Your task to perform on an android device: Open the calendar app, open the side menu, and click the "Day" option Image 0: 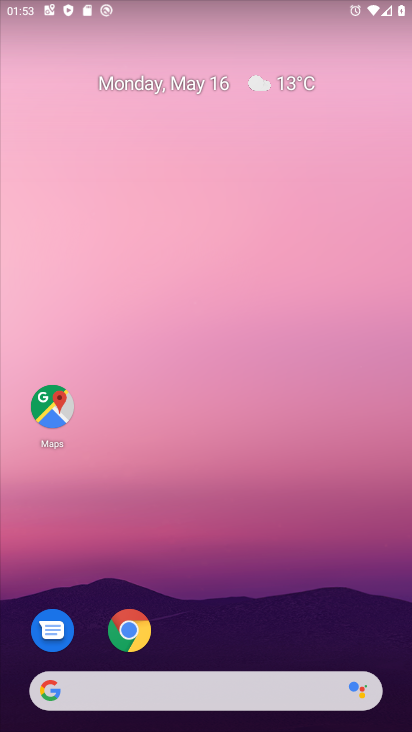
Step 0: drag from (286, 411) to (355, 3)
Your task to perform on an android device: Open the calendar app, open the side menu, and click the "Day" option Image 1: 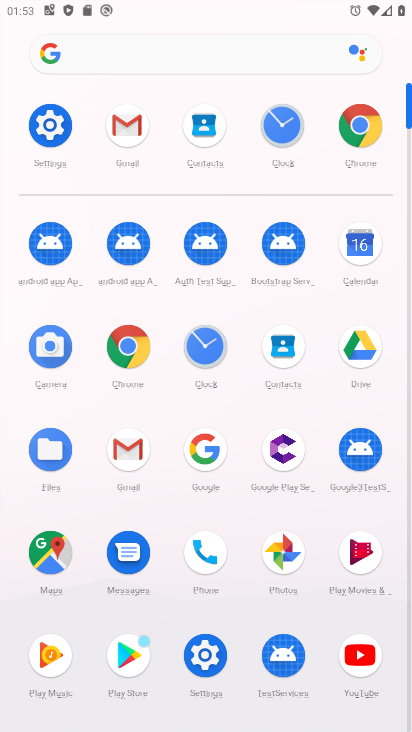
Step 1: click (354, 242)
Your task to perform on an android device: Open the calendar app, open the side menu, and click the "Day" option Image 2: 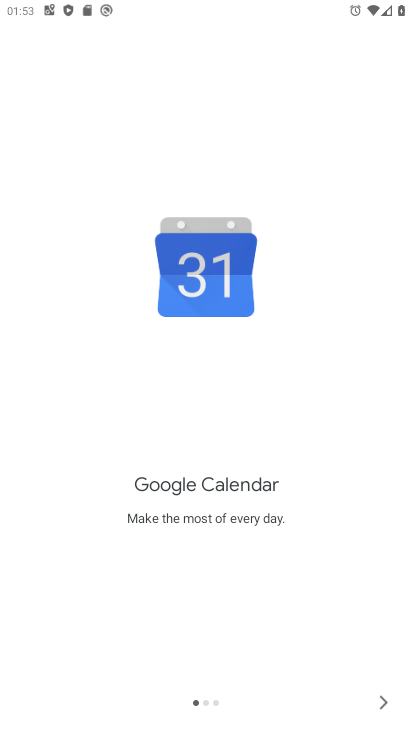
Step 2: click (391, 695)
Your task to perform on an android device: Open the calendar app, open the side menu, and click the "Day" option Image 3: 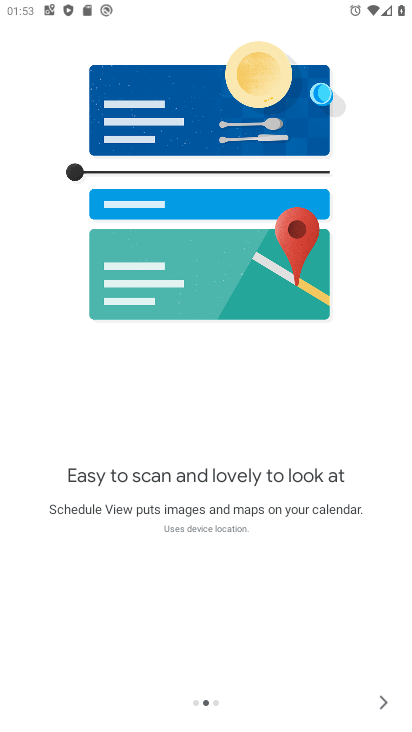
Step 3: click (391, 695)
Your task to perform on an android device: Open the calendar app, open the side menu, and click the "Day" option Image 4: 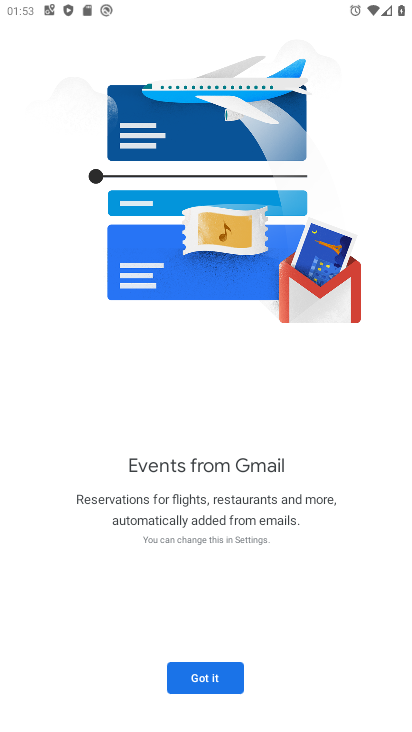
Step 4: click (391, 695)
Your task to perform on an android device: Open the calendar app, open the side menu, and click the "Day" option Image 5: 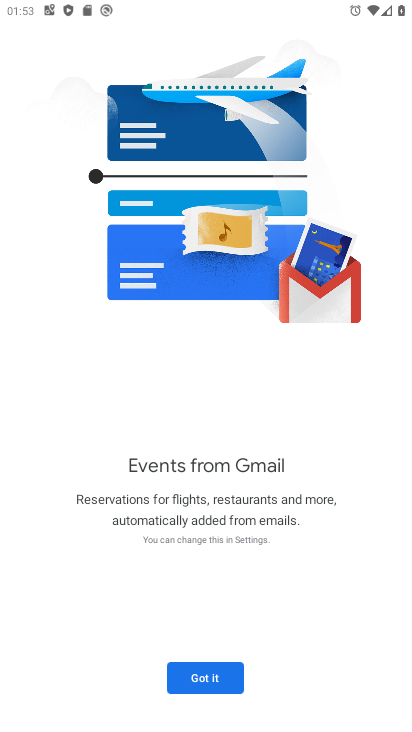
Step 5: click (213, 670)
Your task to perform on an android device: Open the calendar app, open the side menu, and click the "Day" option Image 6: 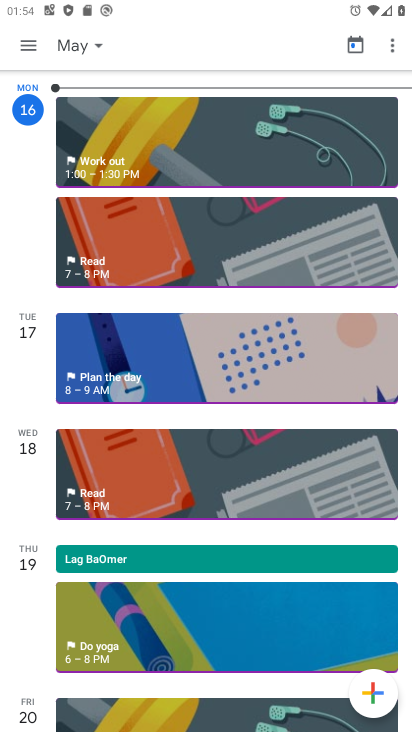
Step 6: click (19, 36)
Your task to perform on an android device: Open the calendar app, open the side menu, and click the "Day" option Image 7: 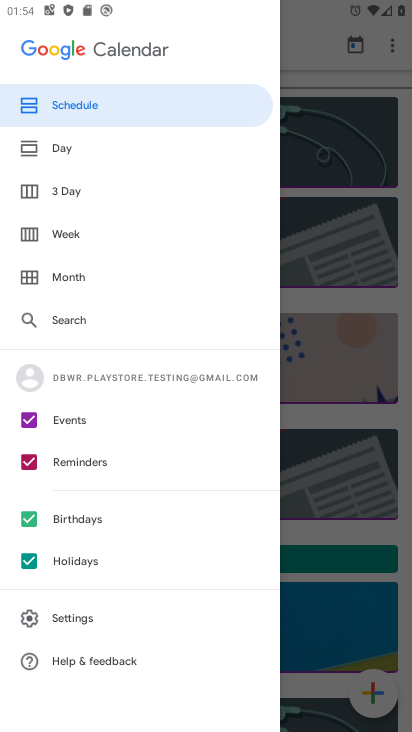
Step 7: click (107, 191)
Your task to perform on an android device: Open the calendar app, open the side menu, and click the "Day" option Image 8: 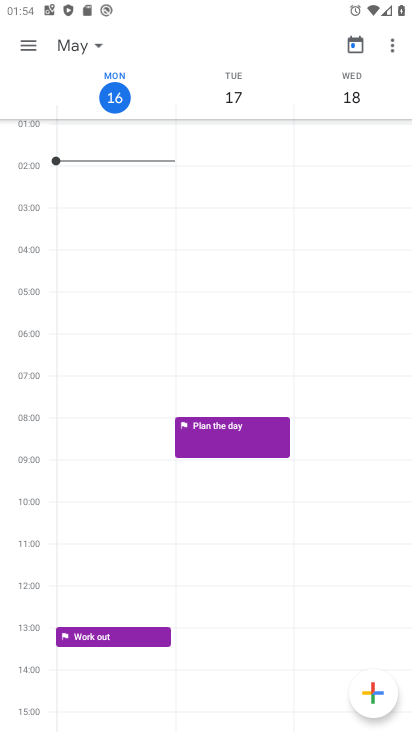
Step 8: task complete